Your task to perform on an android device: Show me the alarms in the clock app Image 0: 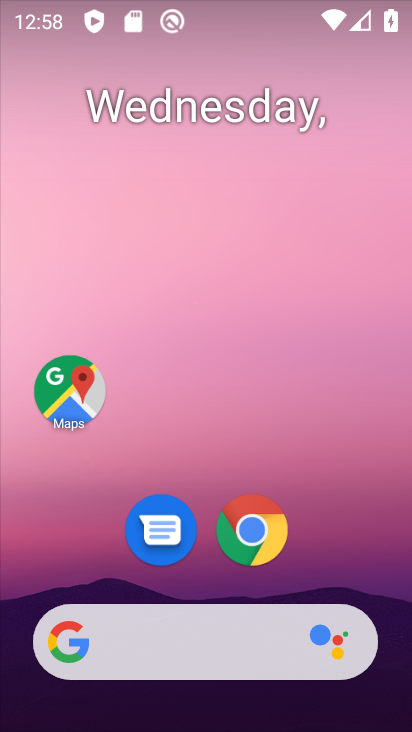
Step 0: drag from (194, 563) to (353, 41)
Your task to perform on an android device: Show me the alarms in the clock app Image 1: 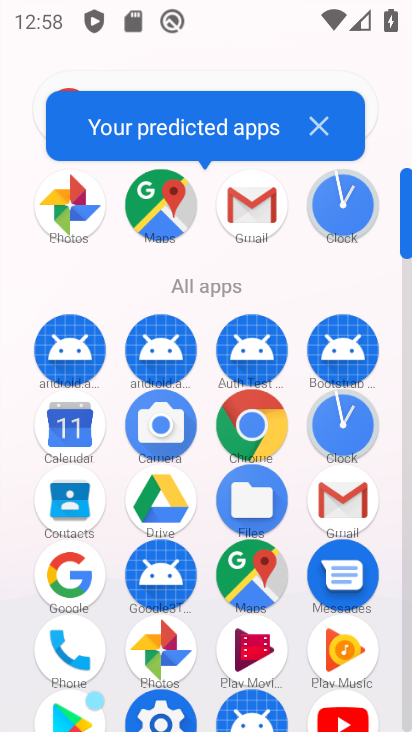
Step 1: click (342, 418)
Your task to perform on an android device: Show me the alarms in the clock app Image 2: 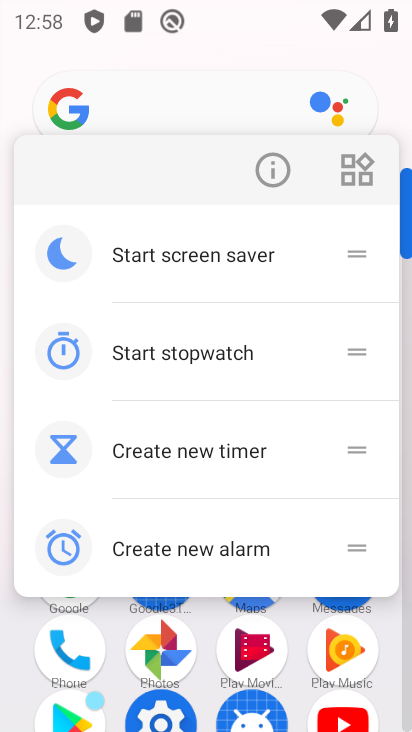
Step 2: click (265, 174)
Your task to perform on an android device: Show me the alarms in the clock app Image 3: 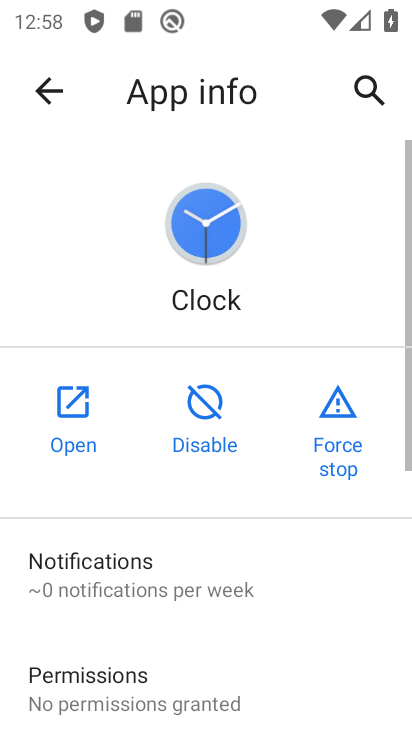
Step 3: click (75, 400)
Your task to perform on an android device: Show me the alarms in the clock app Image 4: 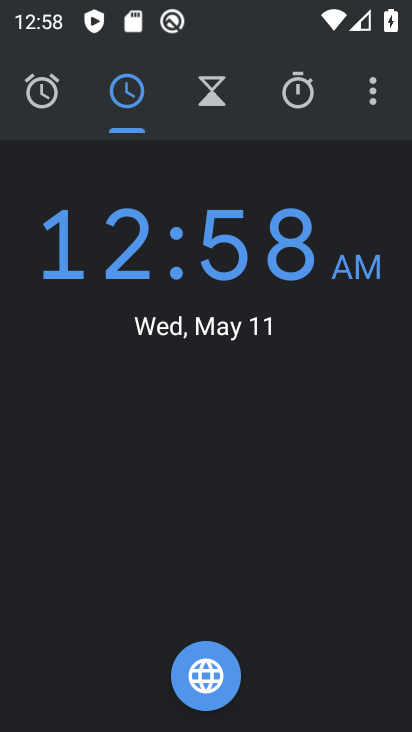
Step 4: click (40, 96)
Your task to perform on an android device: Show me the alarms in the clock app Image 5: 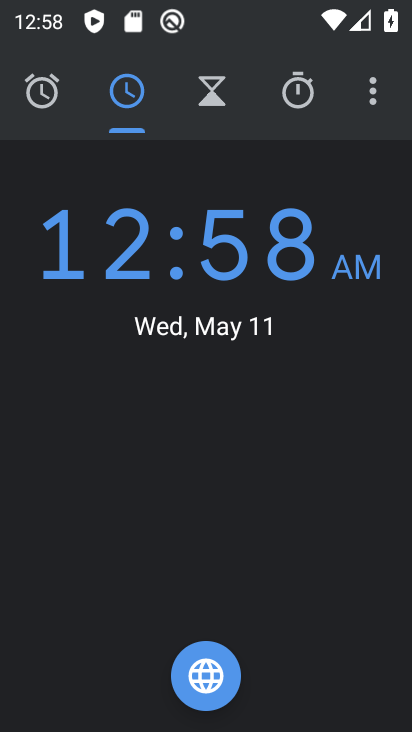
Step 5: click (40, 93)
Your task to perform on an android device: Show me the alarms in the clock app Image 6: 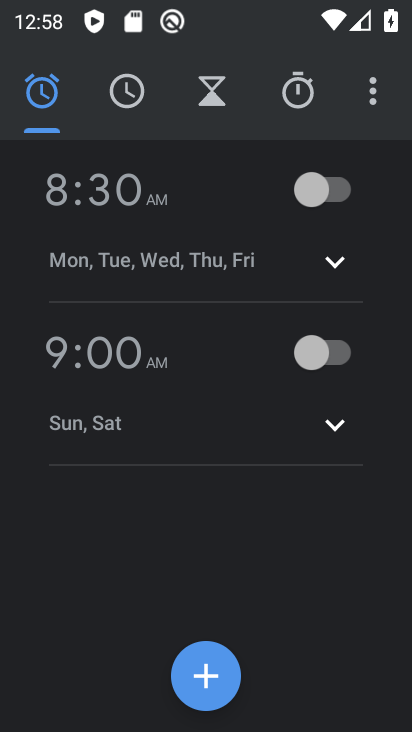
Step 6: task complete